Your task to perform on an android device: Open network settings Image 0: 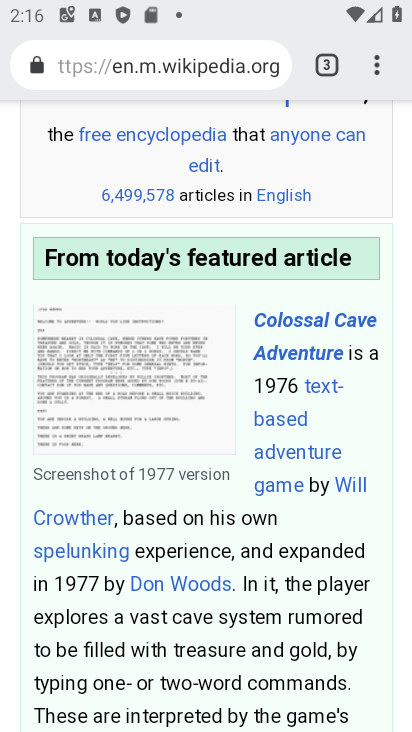
Step 0: drag from (219, 644) to (268, 155)
Your task to perform on an android device: Open network settings Image 1: 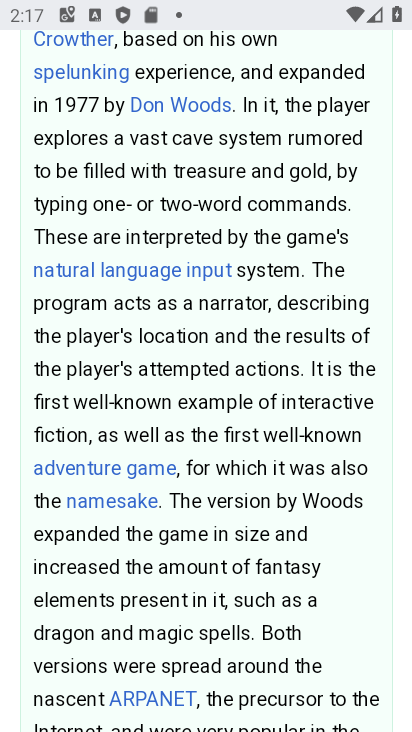
Step 1: drag from (274, 144) to (332, 680)
Your task to perform on an android device: Open network settings Image 2: 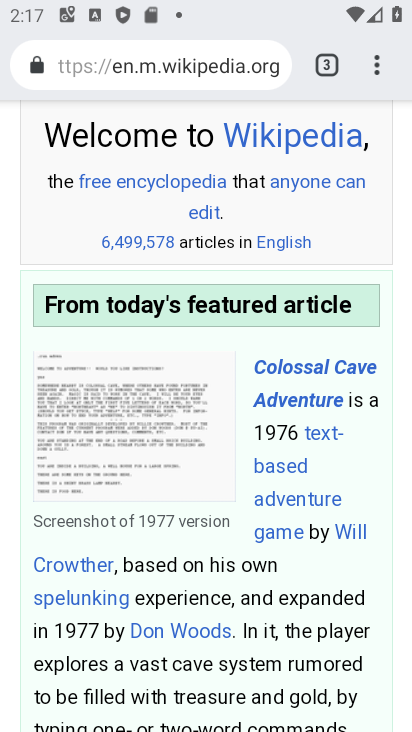
Step 2: press home button
Your task to perform on an android device: Open network settings Image 3: 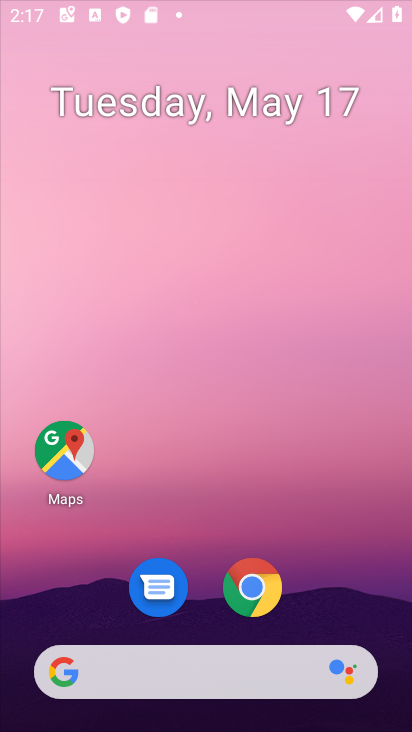
Step 3: drag from (233, 662) to (275, 160)
Your task to perform on an android device: Open network settings Image 4: 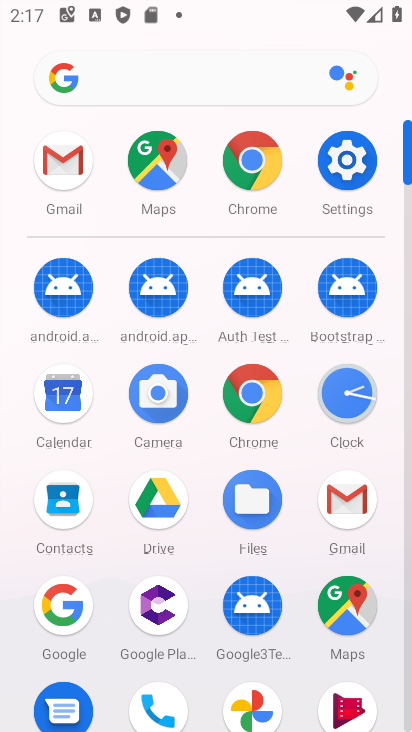
Step 4: click (338, 157)
Your task to perform on an android device: Open network settings Image 5: 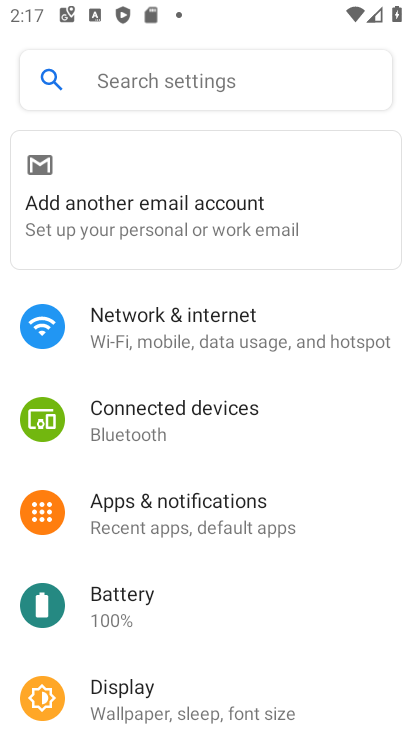
Step 5: click (144, 341)
Your task to perform on an android device: Open network settings Image 6: 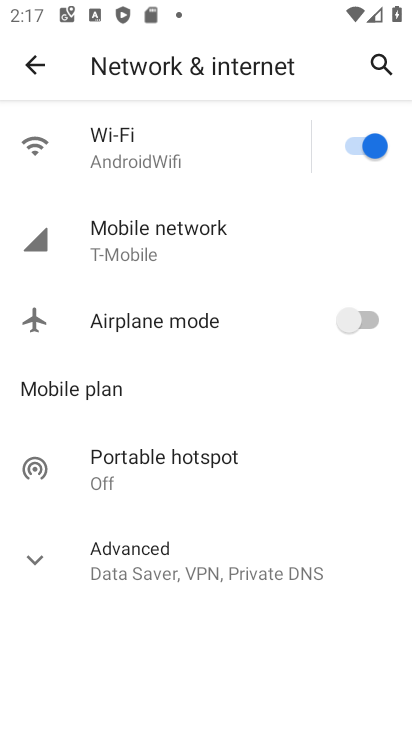
Step 6: click (212, 253)
Your task to perform on an android device: Open network settings Image 7: 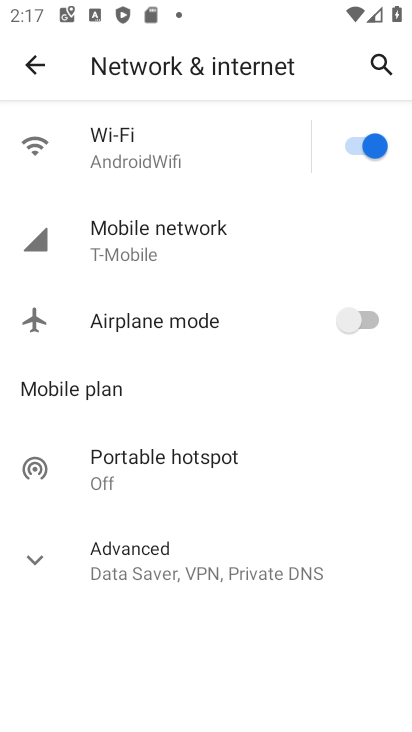
Step 7: task complete